Your task to perform on an android device: Open CNN.com Image 0: 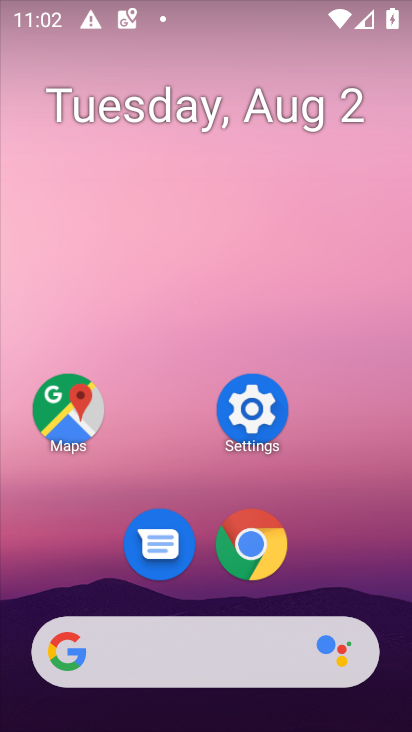
Step 0: click (250, 542)
Your task to perform on an android device: Open CNN.com Image 1: 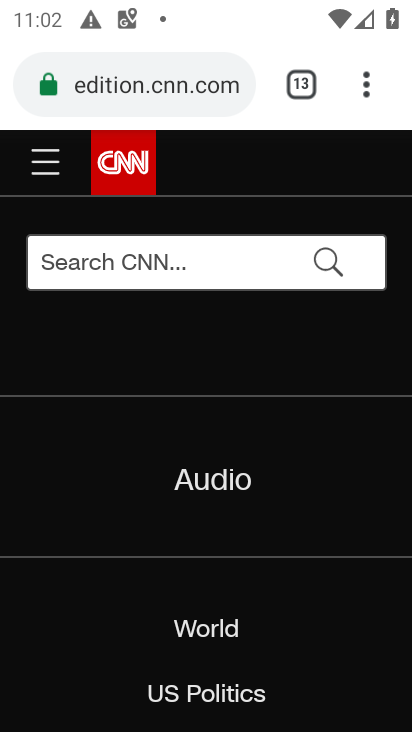
Step 1: task complete